Your task to perform on an android device: toggle wifi Image 0: 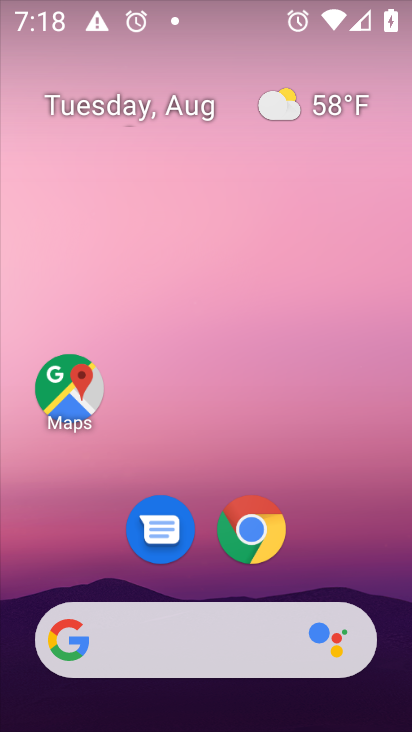
Step 0: press home button
Your task to perform on an android device: toggle wifi Image 1: 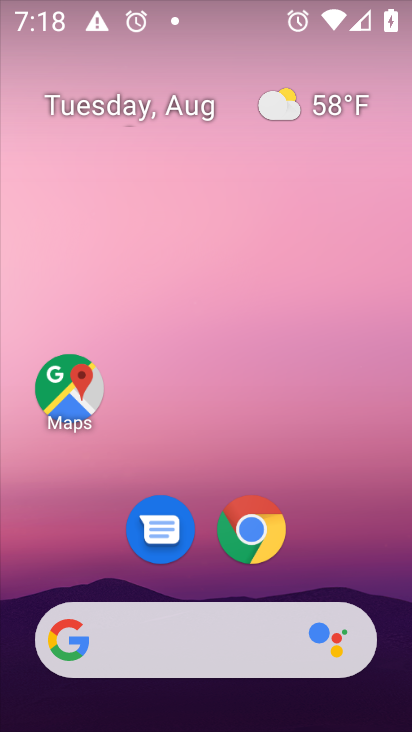
Step 1: drag from (200, 4) to (272, 630)
Your task to perform on an android device: toggle wifi Image 2: 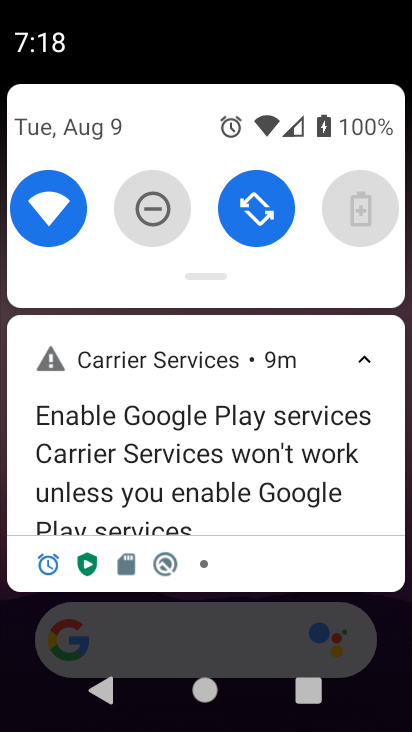
Step 2: click (39, 201)
Your task to perform on an android device: toggle wifi Image 3: 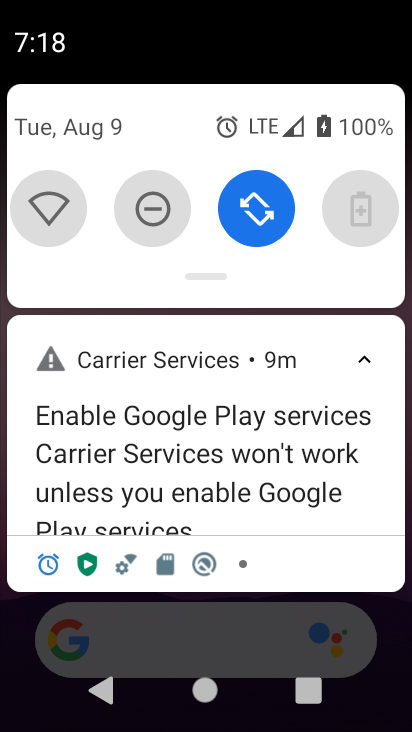
Step 3: task complete